Your task to perform on an android device: Go to Yahoo.com Image 0: 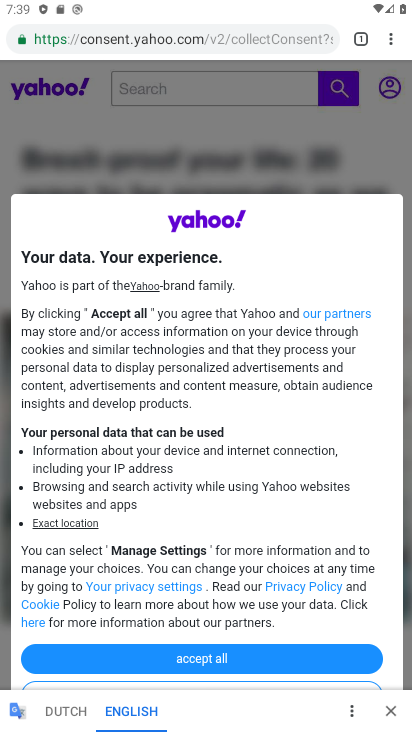
Step 0: press home button
Your task to perform on an android device: Go to Yahoo.com Image 1: 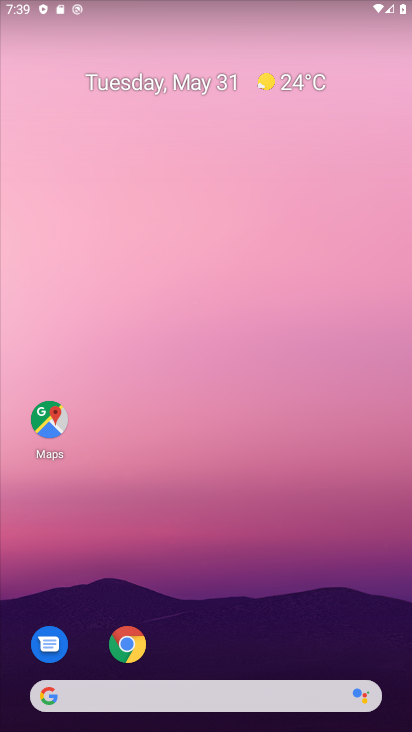
Step 1: drag from (303, 615) to (279, 268)
Your task to perform on an android device: Go to Yahoo.com Image 2: 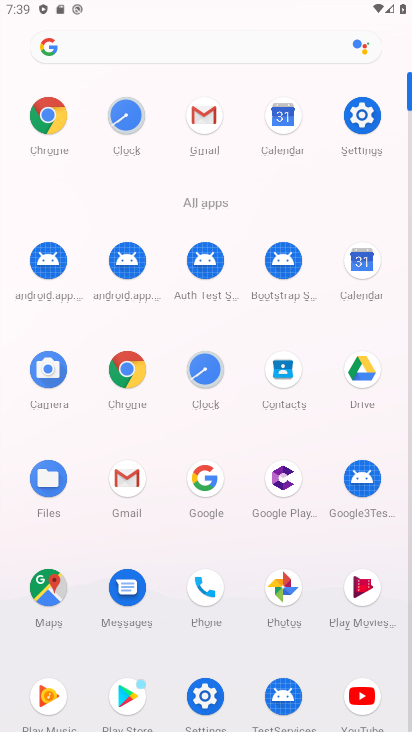
Step 2: click (108, 371)
Your task to perform on an android device: Go to Yahoo.com Image 3: 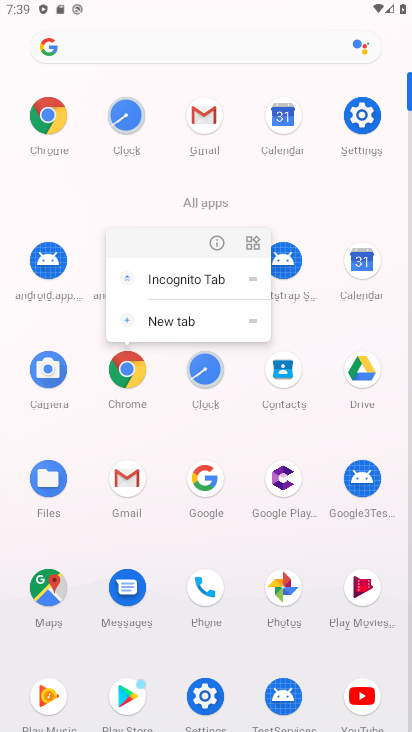
Step 3: click (132, 385)
Your task to perform on an android device: Go to Yahoo.com Image 4: 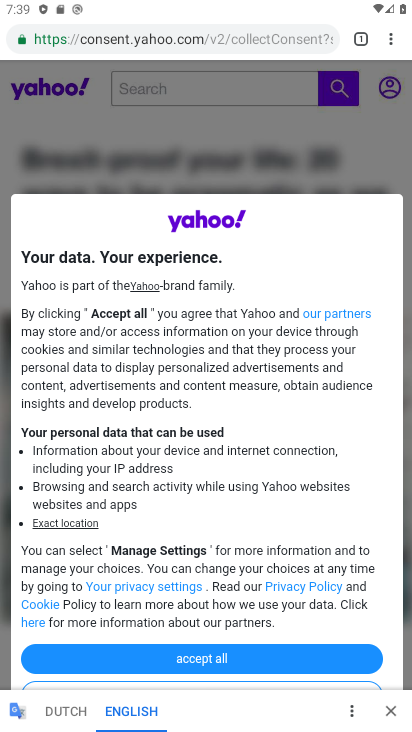
Step 4: task complete